Your task to perform on an android device: make emails show in primary in the gmail app Image 0: 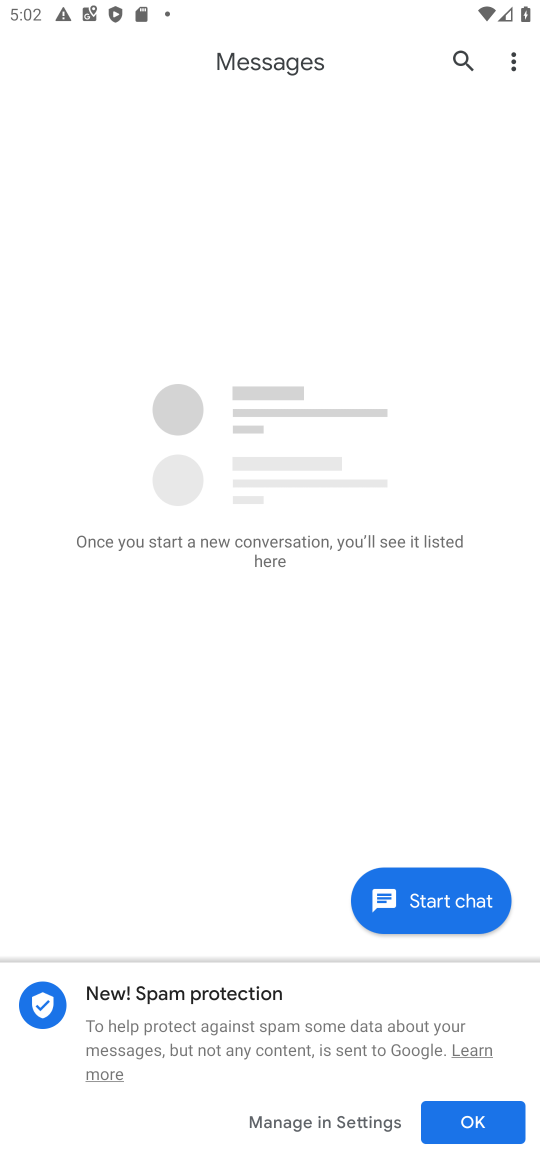
Step 0: press home button
Your task to perform on an android device: make emails show in primary in the gmail app Image 1: 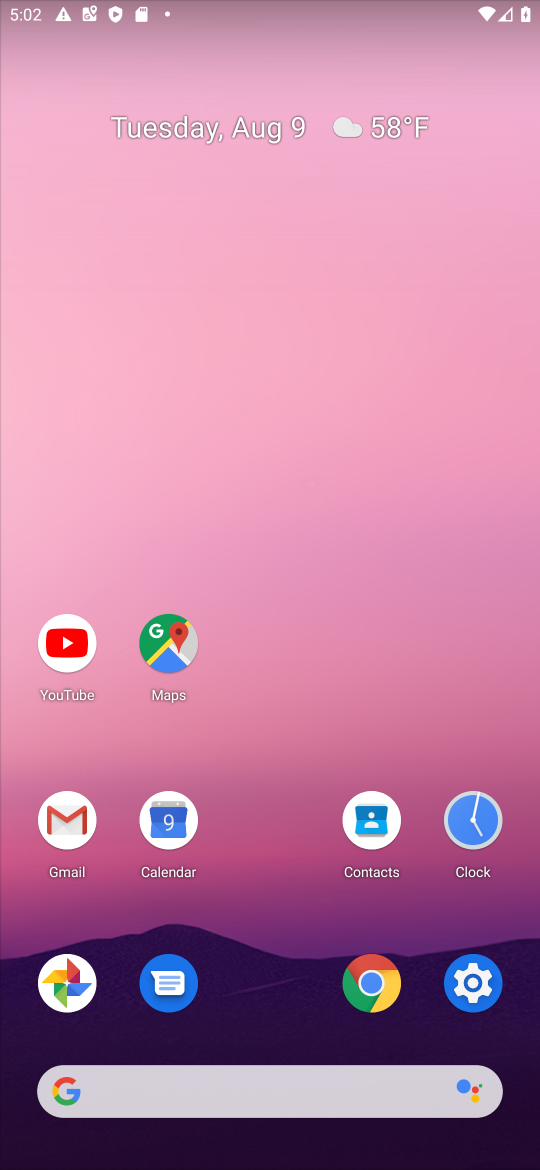
Step 1: click (69, 828)
Your task to perform on an android device: make emails show in primary in the gmail app Image 2: 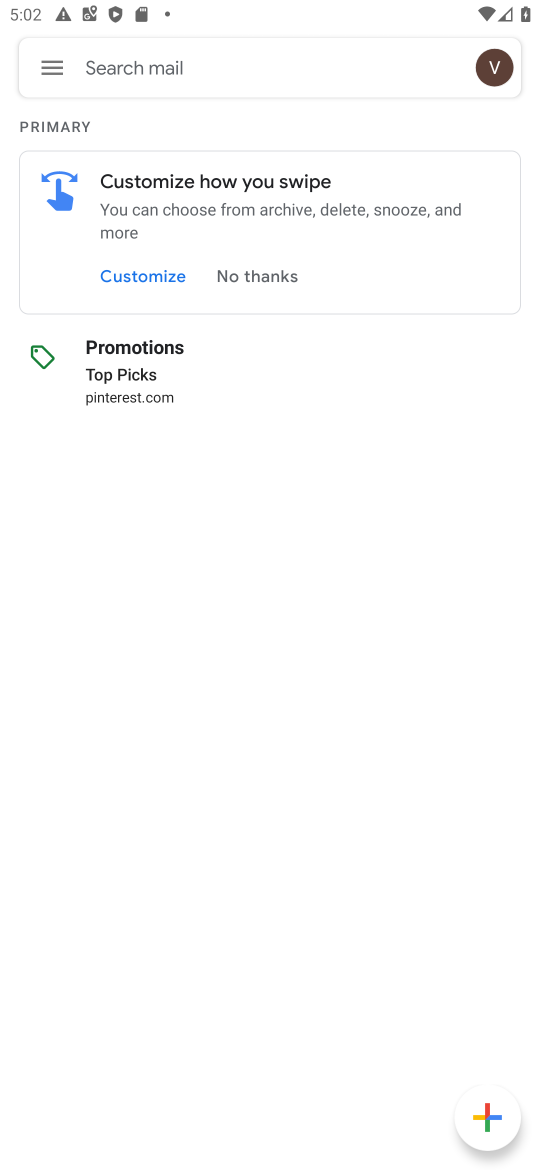
Step 2: click (57, 59)
Your task to perform on an android device: make emails show in primary in the gmail app Image 3: 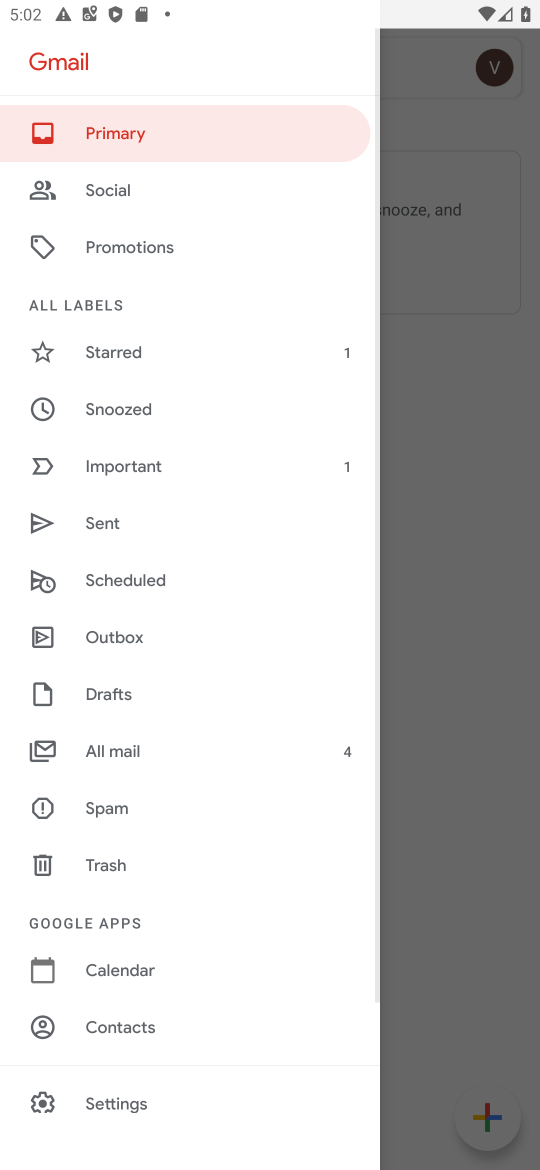
Step 3: click (161, 127)
Your task to perform on an android device: make emails show in primary in the gmail app Image 4: 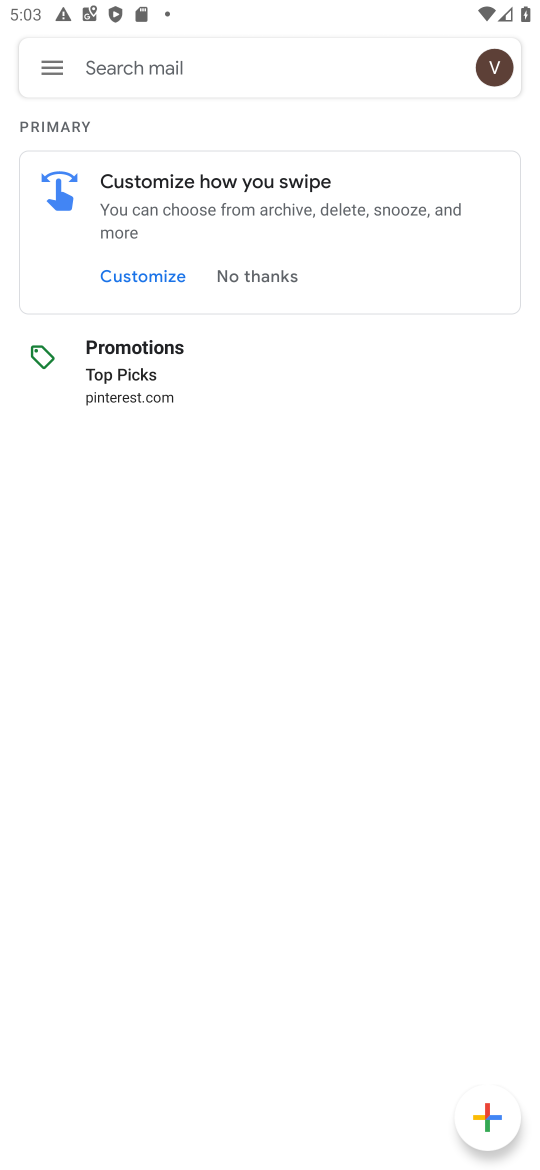
Step 4: task complete